Your task to perform on an android device: turn on wifi Image 0: 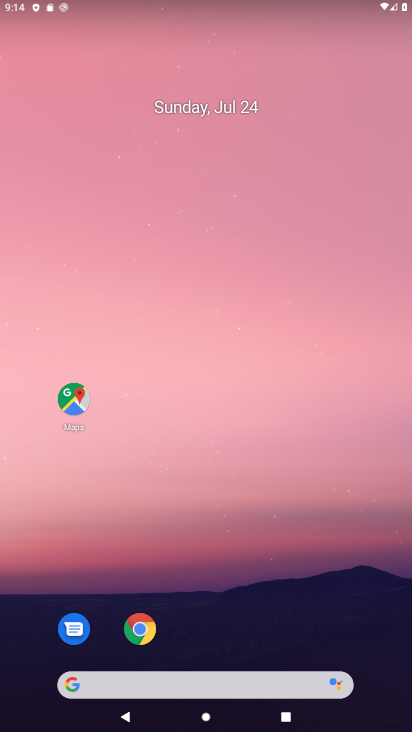
Step 0: drag from (314, 631) to (328, 11)
Your task to perform on an android device: turn on wifi Image 1: 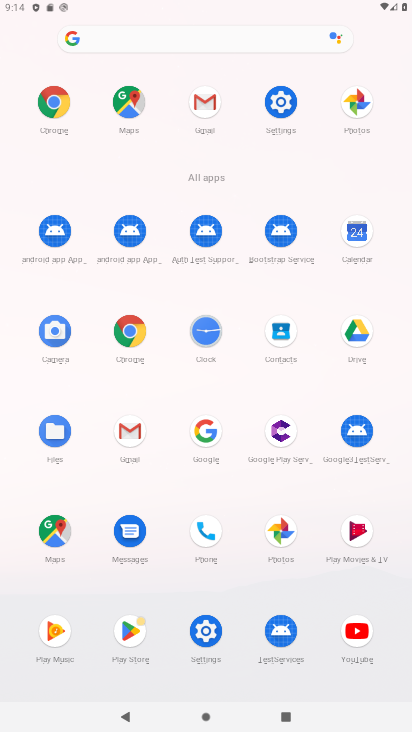
Step 1: click (281, 97)
Your task to perform on an android device: turn on wifi Image 2: 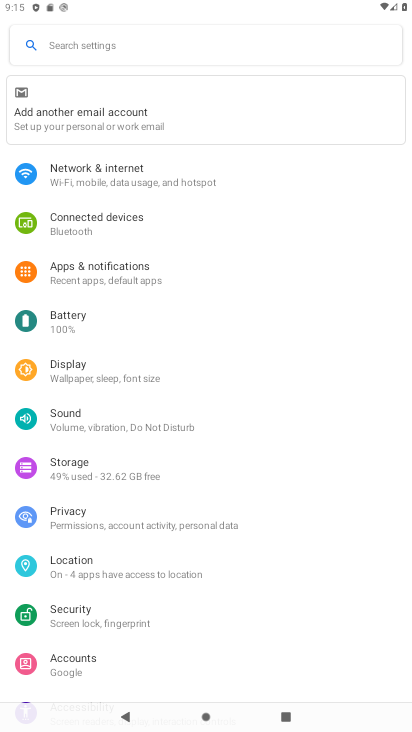
Step 2: click (173, 189)
Your task to perform on an android device: turn on wifi Image 3: 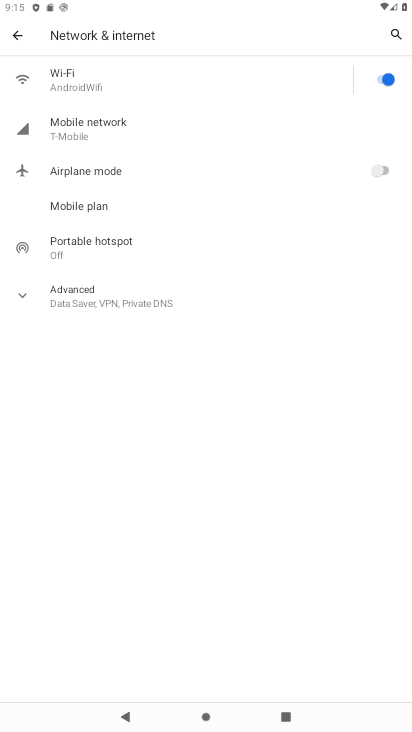
Step 3: task complete